Your task to perform on an android device: Go to display settings Image 0: 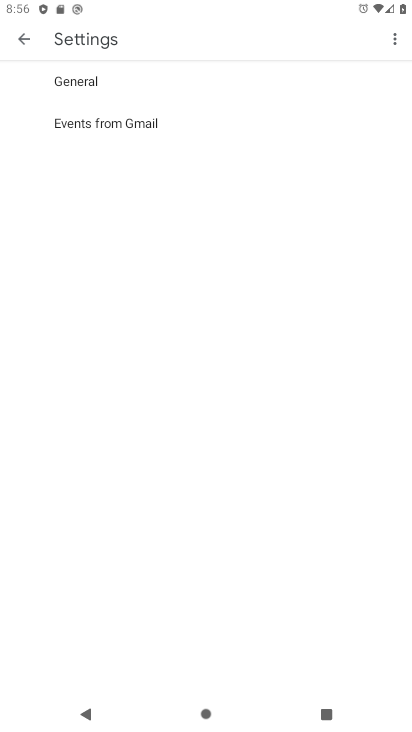
Step 0: press home button
Your task to perform on an android device: Go to display settings Image 1: 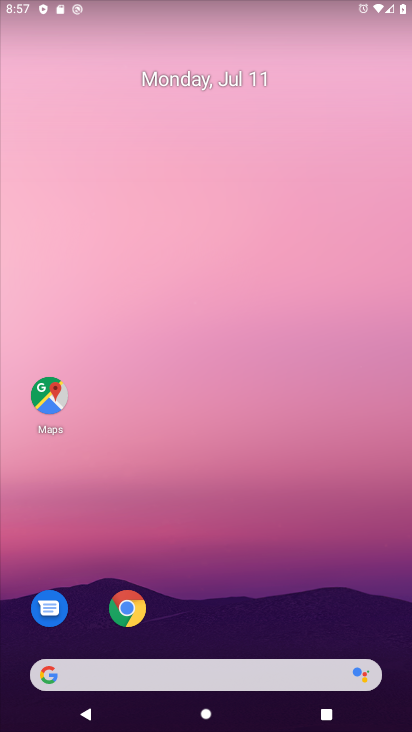
Step 1: drag from (189, 568) to (10, 29)
Your task to perform on an android device: Go to display settings Image 2: 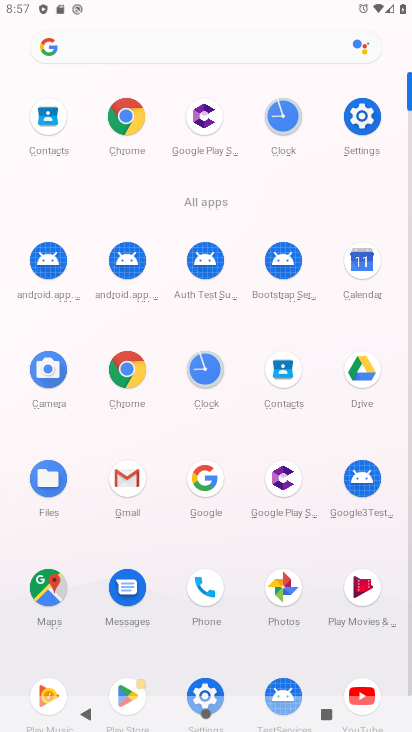
Step 2: click (356, 98)
Your task to perform on an android device: Go to display settings Image 3: 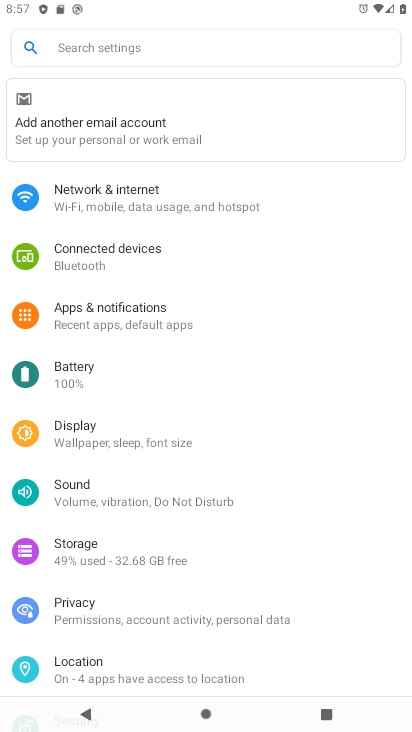
Step 3: click (82, 421)
Your task to perform on an android device: Go to display settings Image 4: 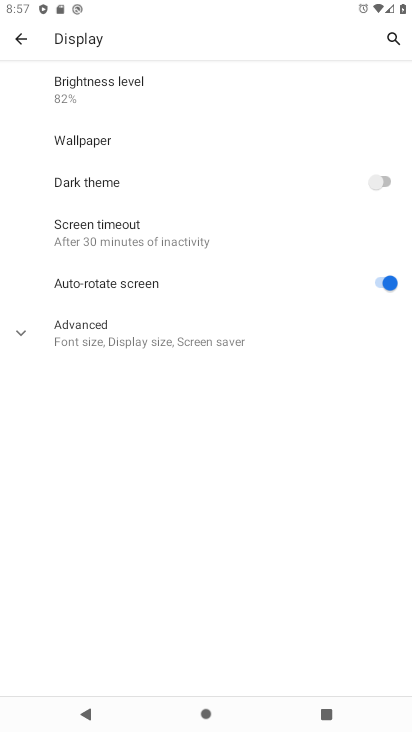
Step 4: task complete